Your task to perform on an android device: Is it going to rain today? Image 0: 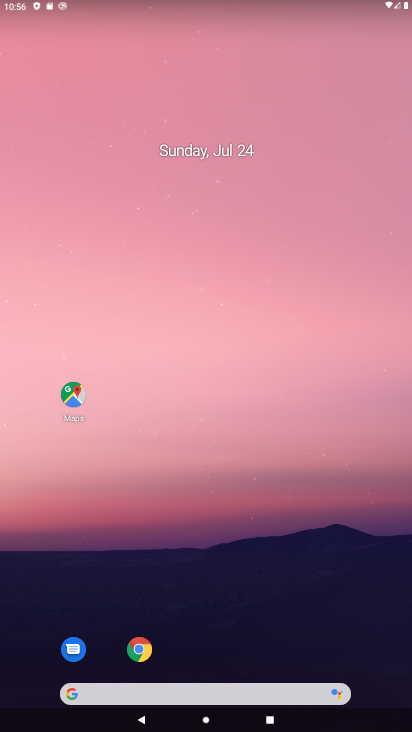
Step 0: drag from (193, 676) to (202, 163)
Your task to perform on an android device: Is it going to rain today? Image 1: 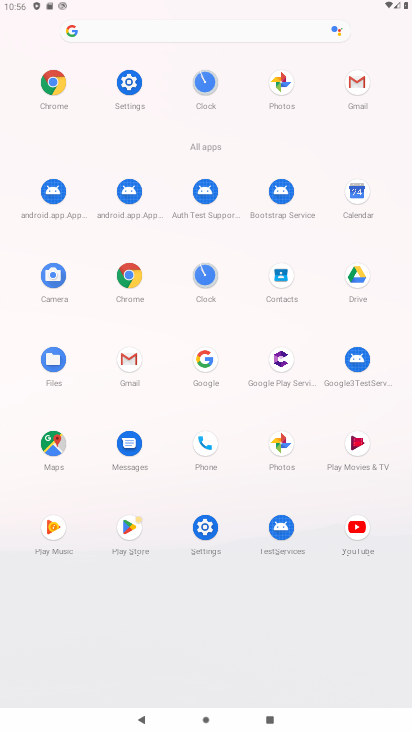
Step 1: click (137, 278)
Your task to perform on an android device: Is it going to rain today? Image 2: 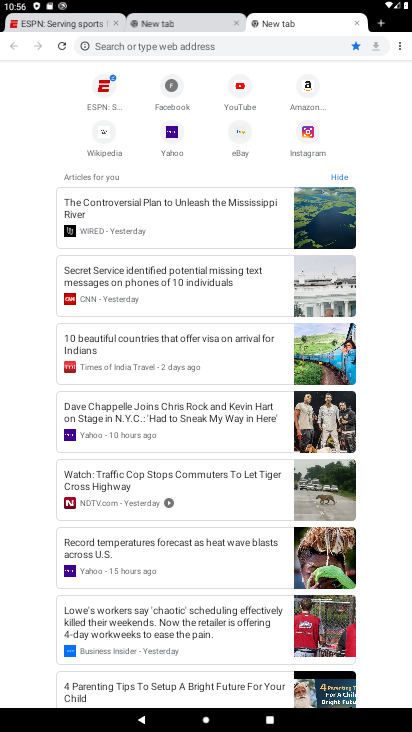
Step 2: click (203, 49)
Your task to perform on an android device: Is it going to rain today? Image 3: 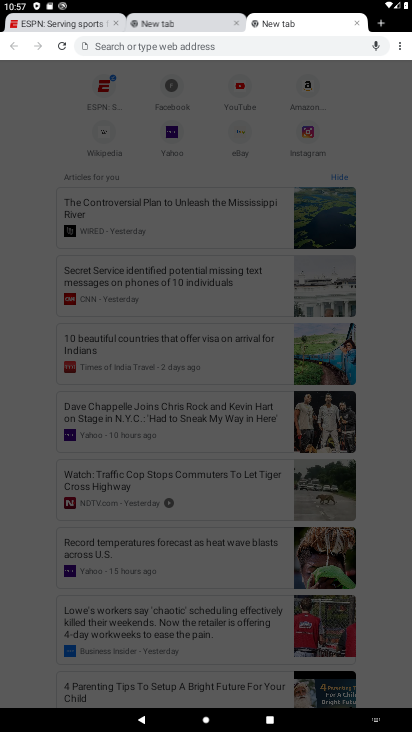
Step 3: type "weather today"
Your task to perform on an android device: Is it going to rain today? Image 4: 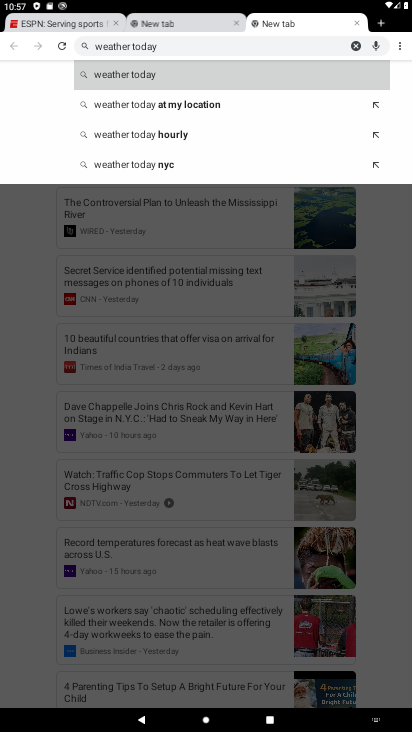
Step 4: click (172, 84)
Your task to perform on an android device: Is it going to rain today? Image 5: 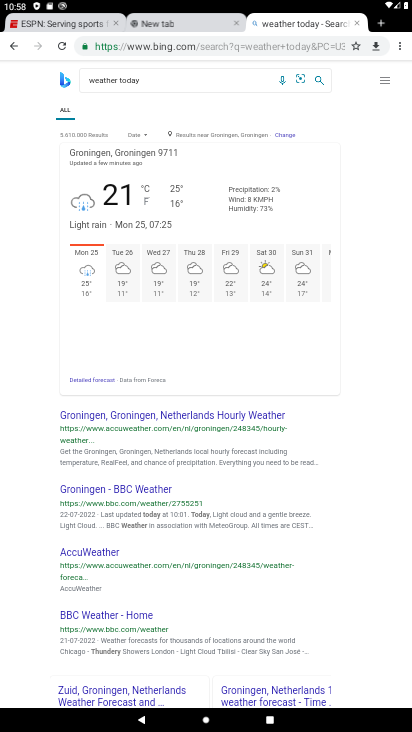
Step 5: task complete